Your task to perform on an android device: Open Chrome and go to the settings page Image 0: 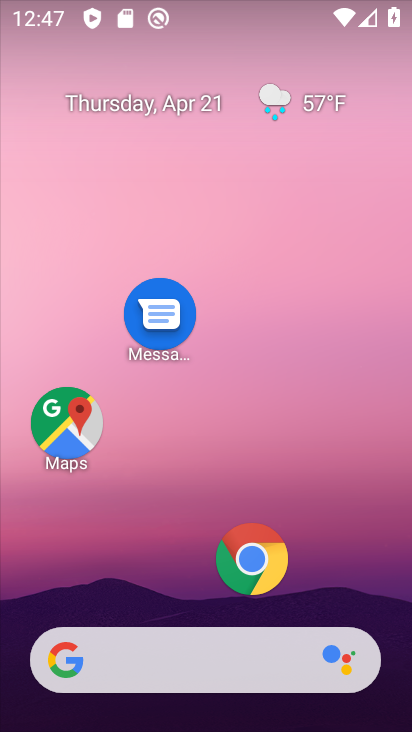
Step 0: click (260, 566)
Your task to perform on an android device: Open Chrome and go to the settings page Image 1: 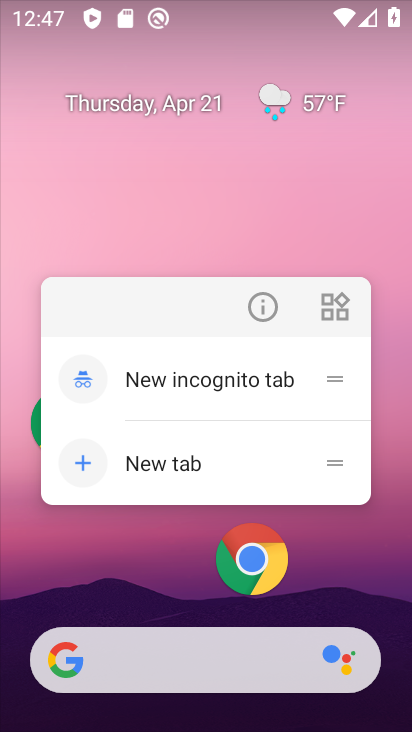
Step 1: click (260, 566)
Your task to perform on an android device: Open Chrome and go to the settings page Image 2: 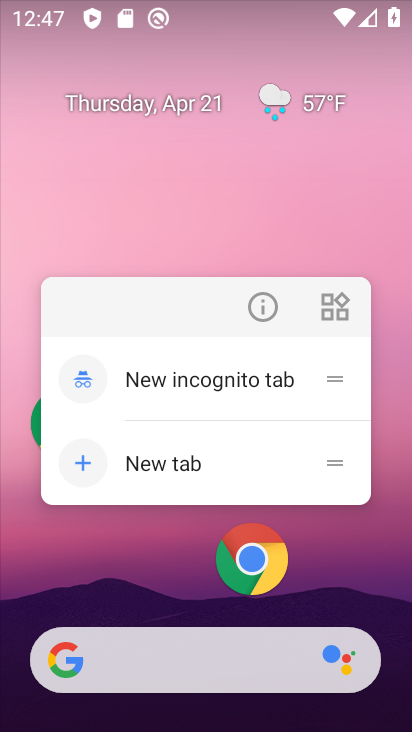
Step 2: click (260, 566)
Your task to perform on an android device: Open Chrome and go to the settings page Image 3: 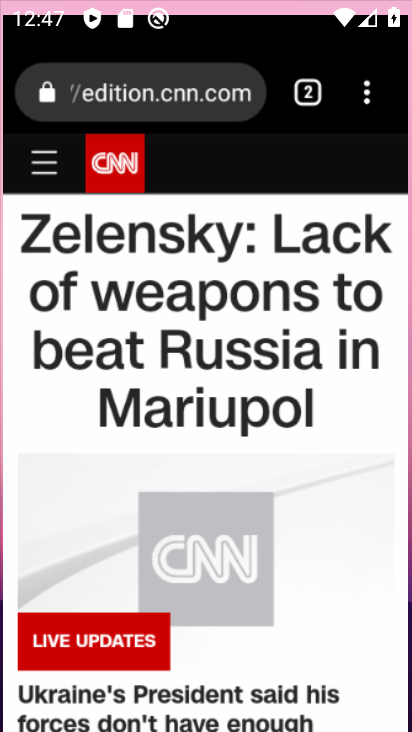
Step 3: click (260, 566)
Your task to perform on an android device: Open Chrome and go to the settings page Image 4: 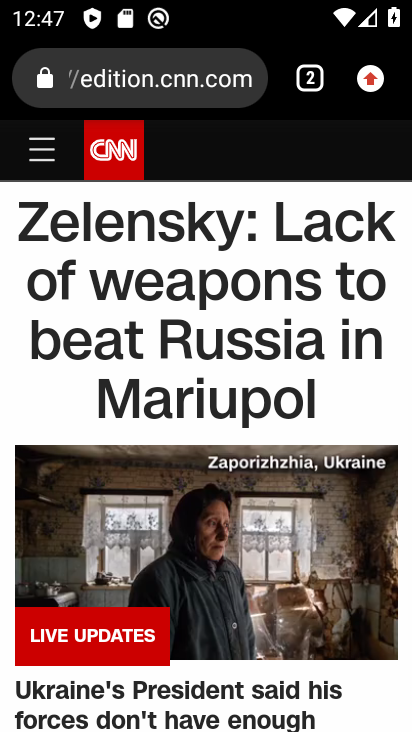
Step 4: click (370, 89)
Your task to perform on an android device: Open Chrome and go to the settings page Image 5: 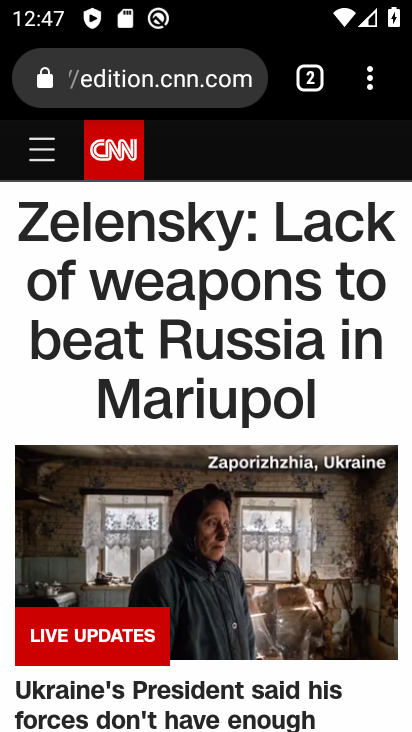
Step 5: click (370, 75)
Your task to perform on an android device: Open Chrome and go to the settings page Image 6: 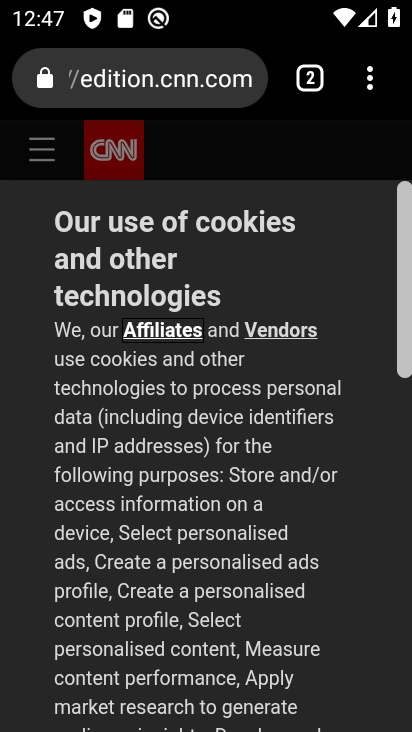
Step 6: click (370, 75)
Your task to perform on an android device: Open Chrome and go to the settings page Image 7: 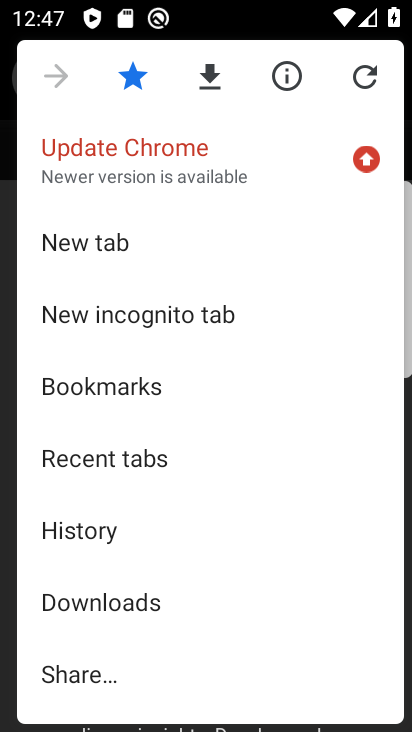
Step 7: drag from (140, 691) to (203, 321)
Your task to perform on an android device: Open Chrome and go to the settings page Image 8: 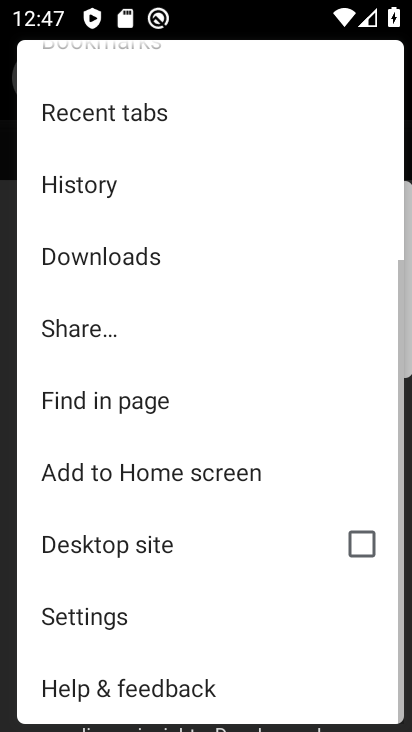
Step 8: click (84, 621)
Your task to perform on an android device: Open Chrome and go to the settings page Image 9: 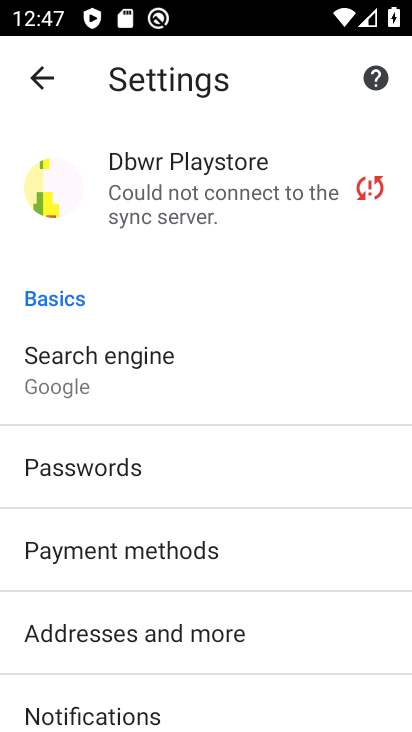
Step 9: task complete